Your task to perform on an android device: View the shopping cart on amazon.com. Add "jbl flip 4" to the cart on amazon.com, then select checkout. Image 0: 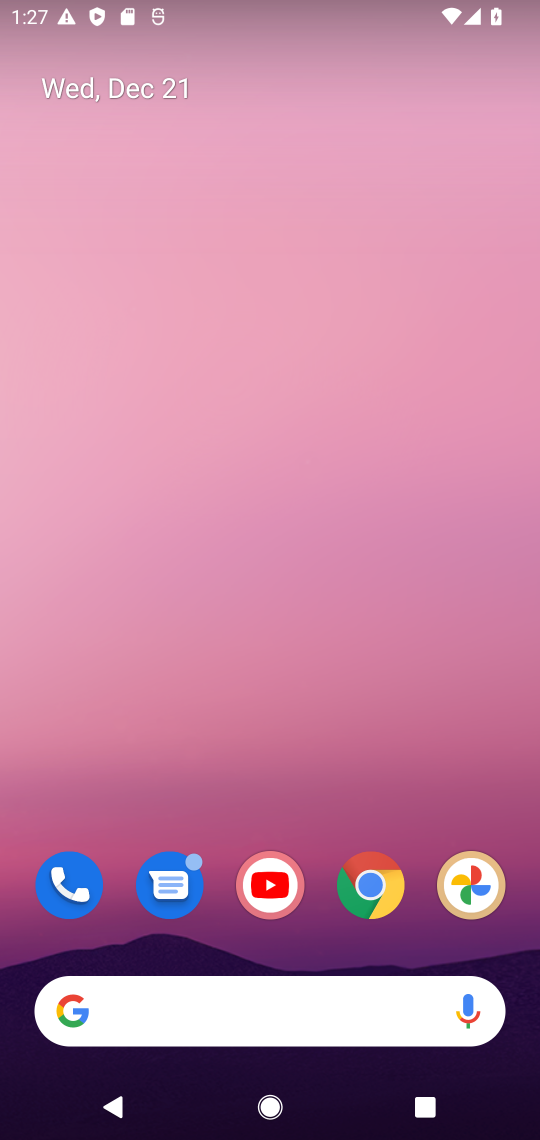
Step 0: drag from (302, 1006) to (268, 488)
Your task to perform on an android device: View the shopping cart on amazon.com. Add "jbl flip 4" to the cart on amazon.com, then select checkout. Image 1: 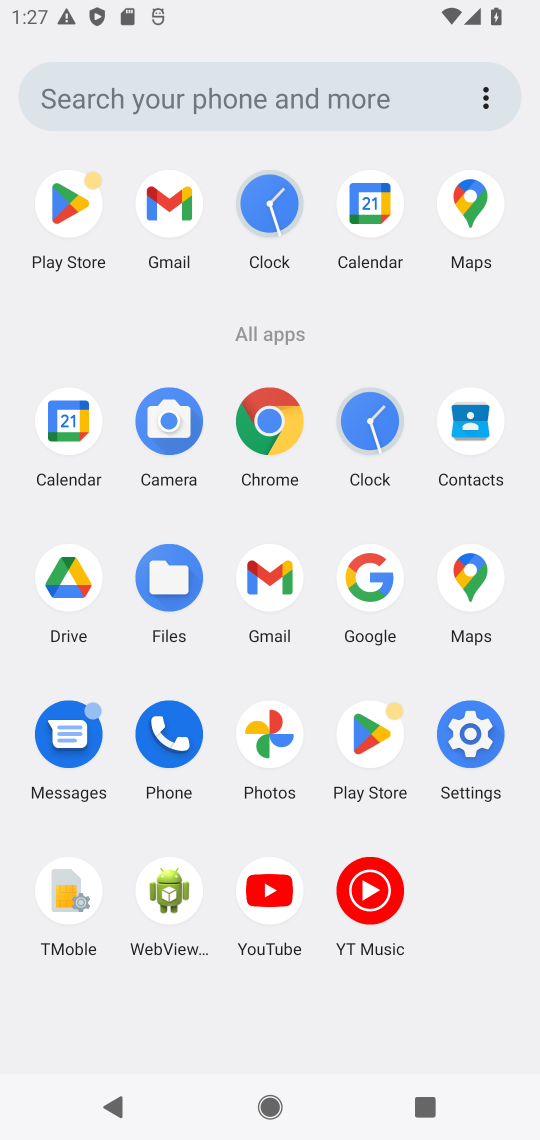
Step 1: click (373, 566)
Your task to perform on an android device: View the shopping cart on amazon.com. Add "jbl flip 4" to the cart on amazon.com, then select checkout. Image 2: 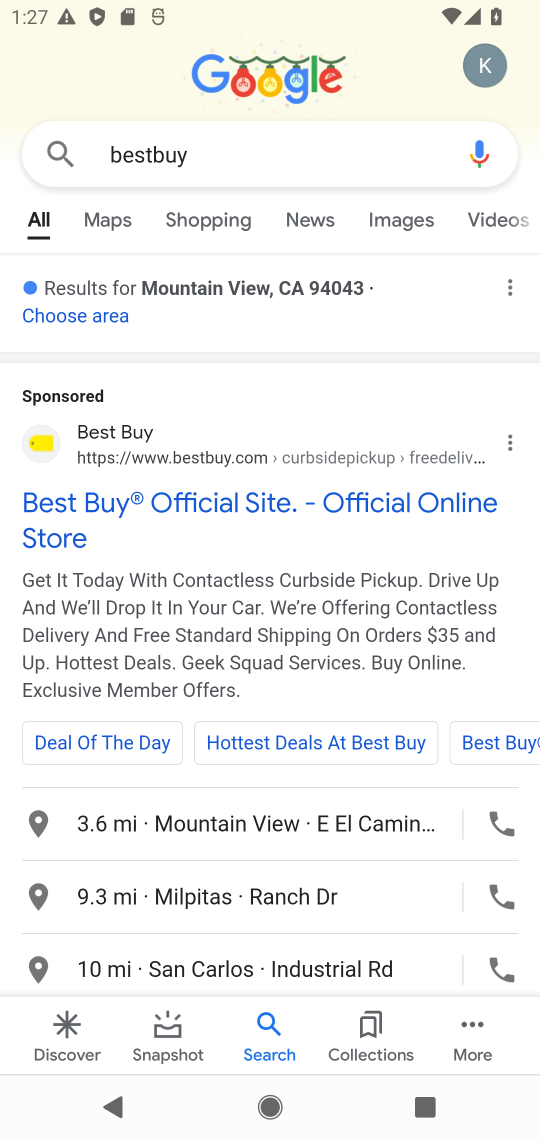
Step 2: click (132, 149)
Your task to perform on an android device: View the shopping cart on amazon.com. Add "jbl flip 4" to the cart on amazon.com, then select checkout. Image 3: 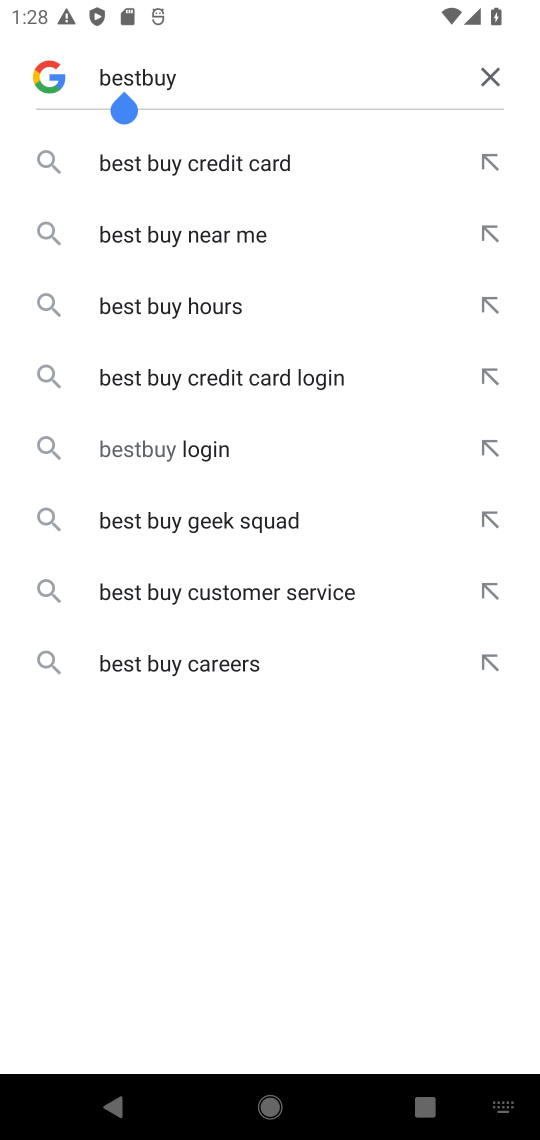
Step 3: click (496, 71)
Your task to perform on an android device: View the shopping cart on amazon.com. Add "jbl flip 4" to the cart on amazon.com, then select checkout. Image 4: 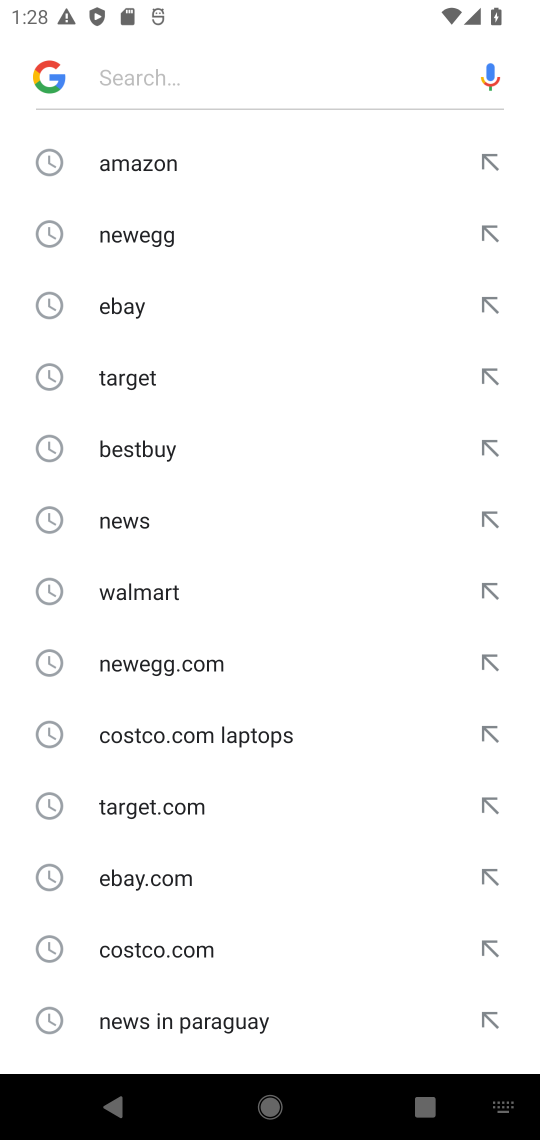
Step 4: click (136, 165)
Your task to perform on an android device: View the shopping cart on amazon.com. Add "jbl flip 4" to the cart on amazon.com, then select checkout. Image 5: 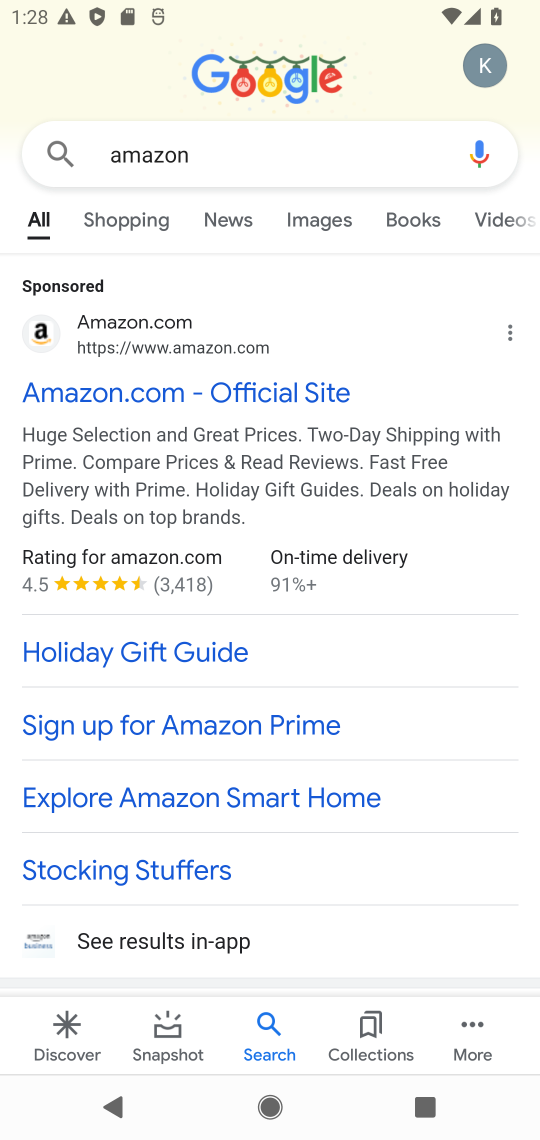
Step 5: click (129, 403)
Your task to perform on an android device: View the shopping cart on amazon.com. Add "jbl flip 4" to the cart on amazon.com, then select checkout. Image 6: 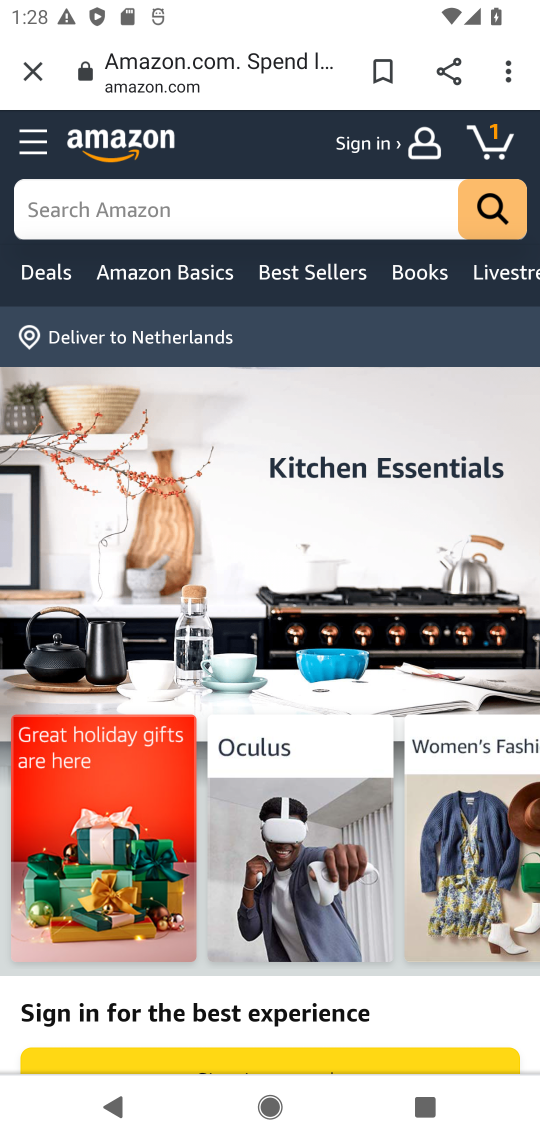
Step 6: click (497, 130)
Your task to perform on an android device: View the shopping cart on amazon.com. Add "jbl flip 4" to the cart on amazon.com, then select checkout. Image 7: 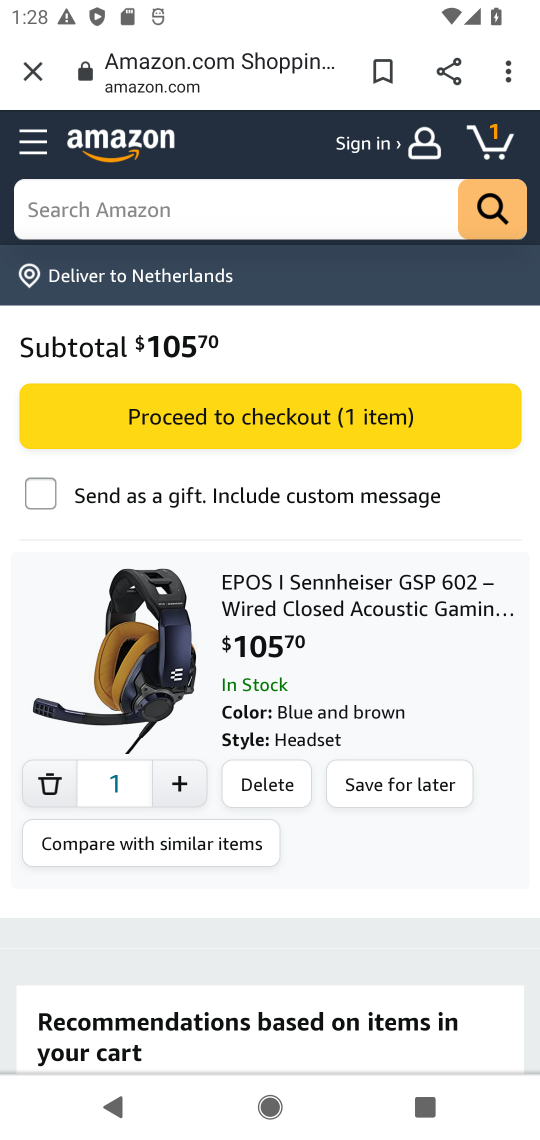
Step 7: click (120, 210)
Your task to perform on an android device: View the shopping cart on amazon.com. Add "jbl flip 4" to the cart on amazon.com, then select checkout. Image 8: 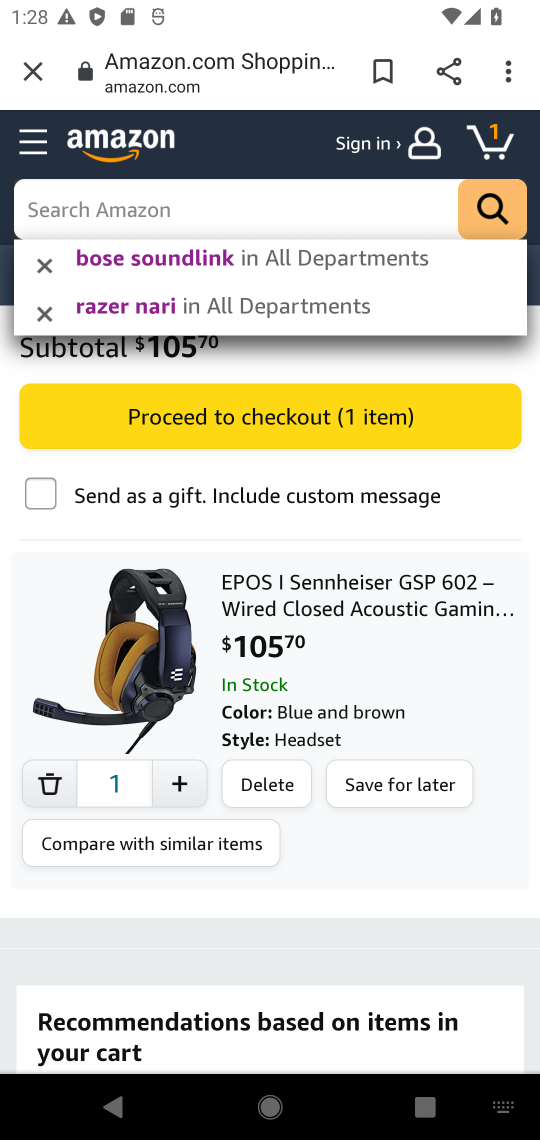
Step 8: type "jbl flip 4"
Your task to perform on an android device: View the shopping cart on amazon.com. Add "jbl flip 4" to the cart on amazon.com, then select checkout. Image 9: 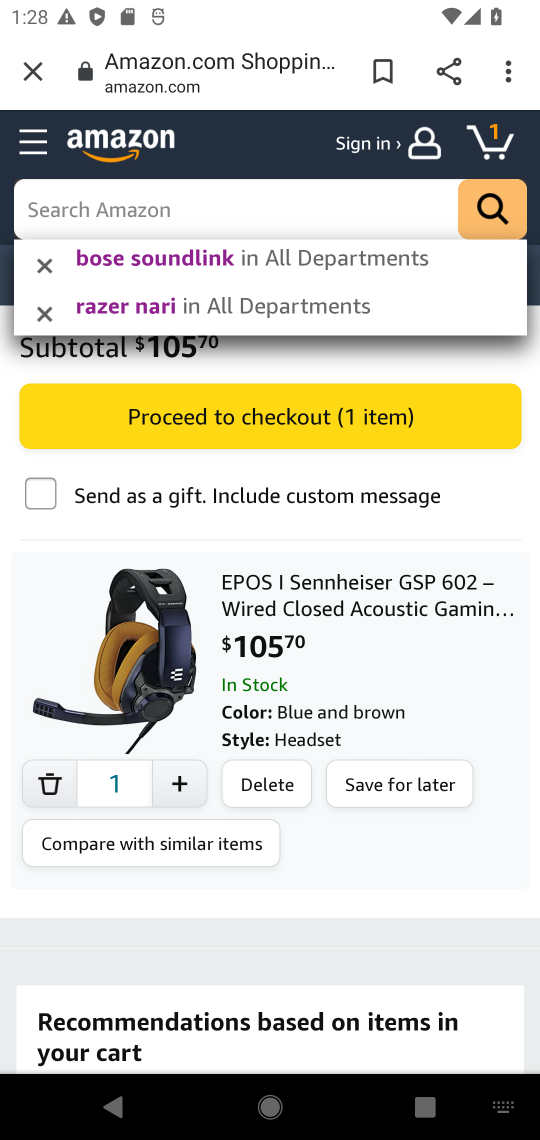
Step 9: click (515, 207)
Your task to perform on an android device: View the shopping cart on amazon.com. Add "jbl flip 4" to the cart on amazon.com, then select checkout. Image 10: 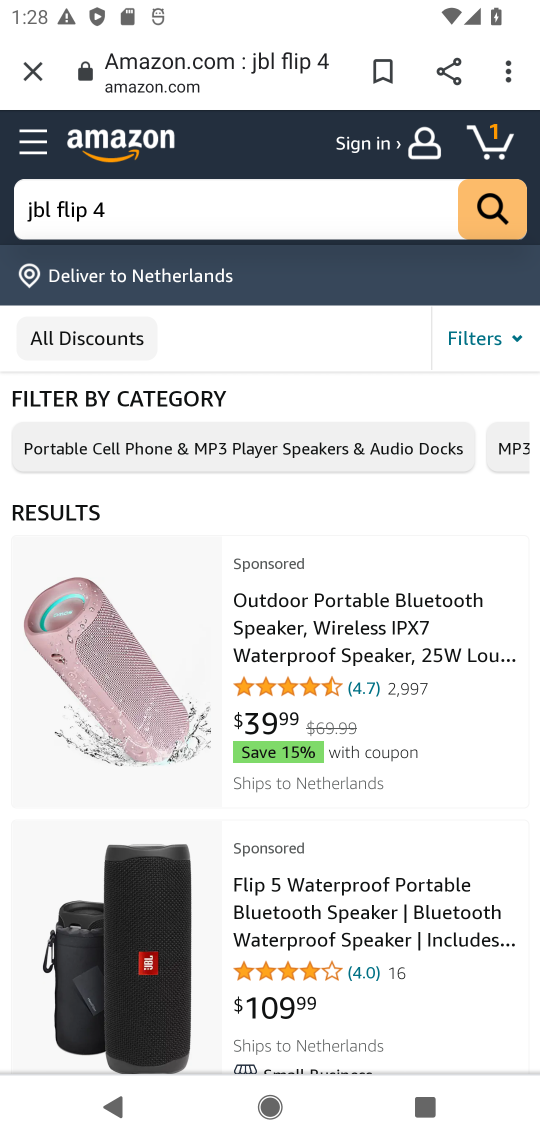
Step 10: click (119, 212)
Your task to perform on an android device: View the shopping cart on amazon.com. Add "jbl flip 4" to the cart on amazon.com, then select checkout. Image 11: 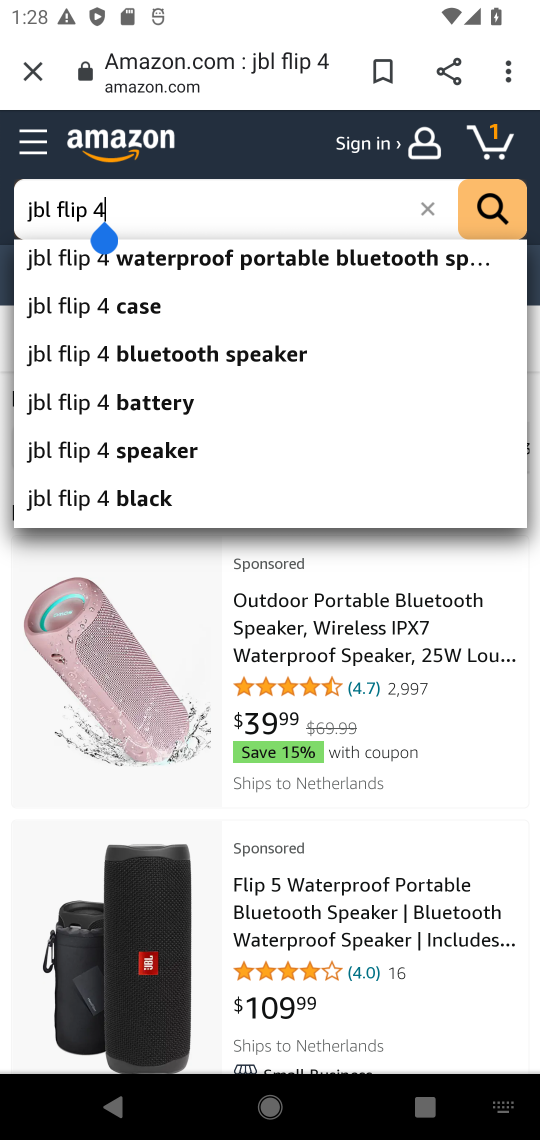
Step 11: click (90, 299)
Your task to perform on an android device: View the shopping cart on amazon.com. Add "jbl flip 4" to the cart on amazon.com, then select checkout. Image 12: 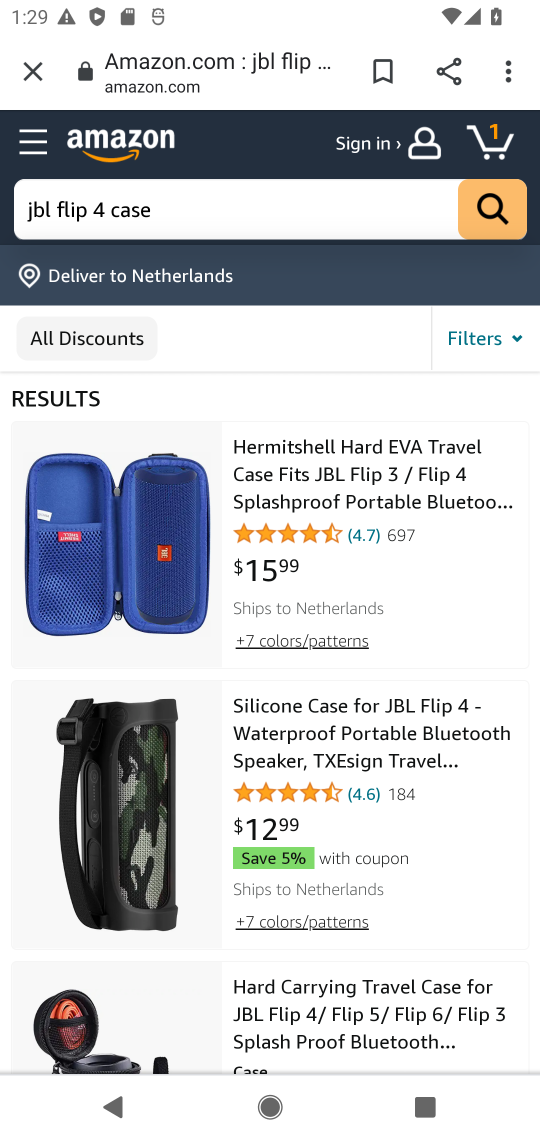
Step 12: click (281, 475)
Your task to perform on an android device: View the shopping cart on amazon.com. Add "jbl flip 4" to the cart on amazon.com, then select checkout. Image 13: 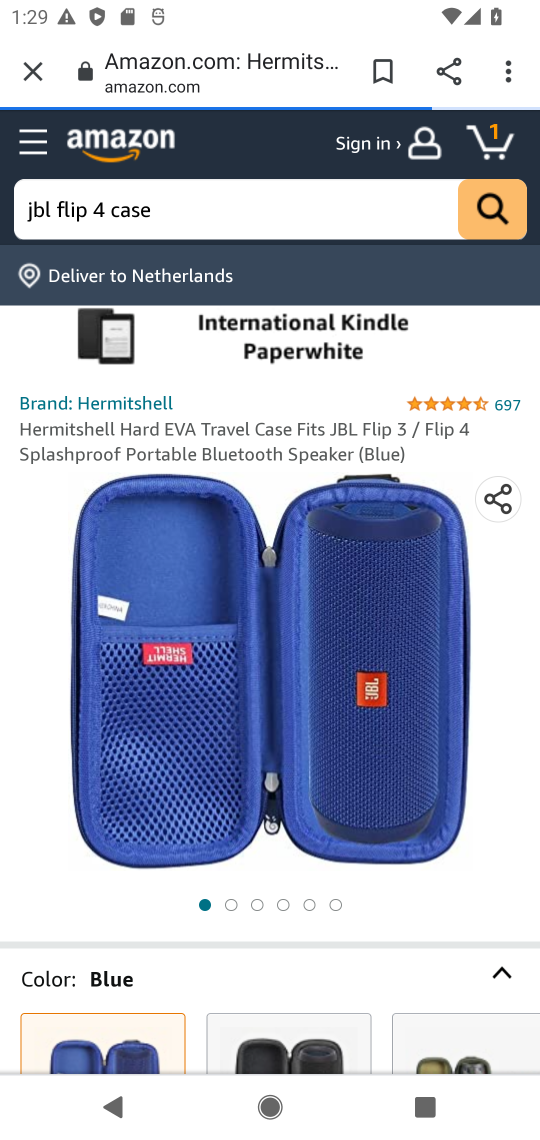
Step 13: drag from (369, 880) to (332, 468)
Your task to perform on an android device: View the shopping cart on amazon.com. Add "jbl flip 4" to the cart on amazon.com, then select checkout. Image 14: 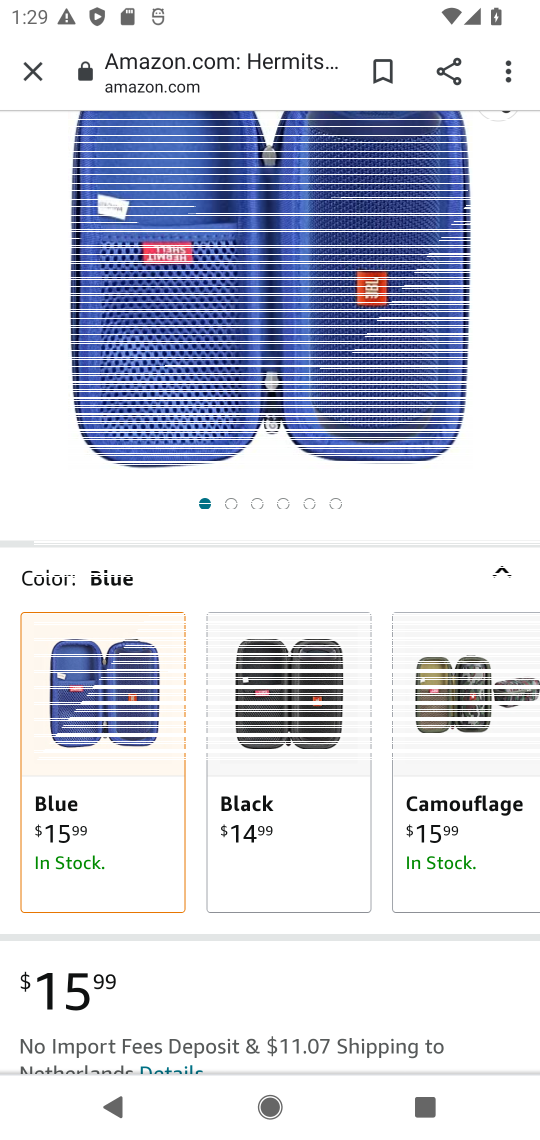
Step 14: drag from (292, 1009) to (203, 517)
Your task to perform on an android device: View the shopping cart on amazon.com. Add "jbl flip 4" to the cart on amazon.com, then select checkout. Image 15: 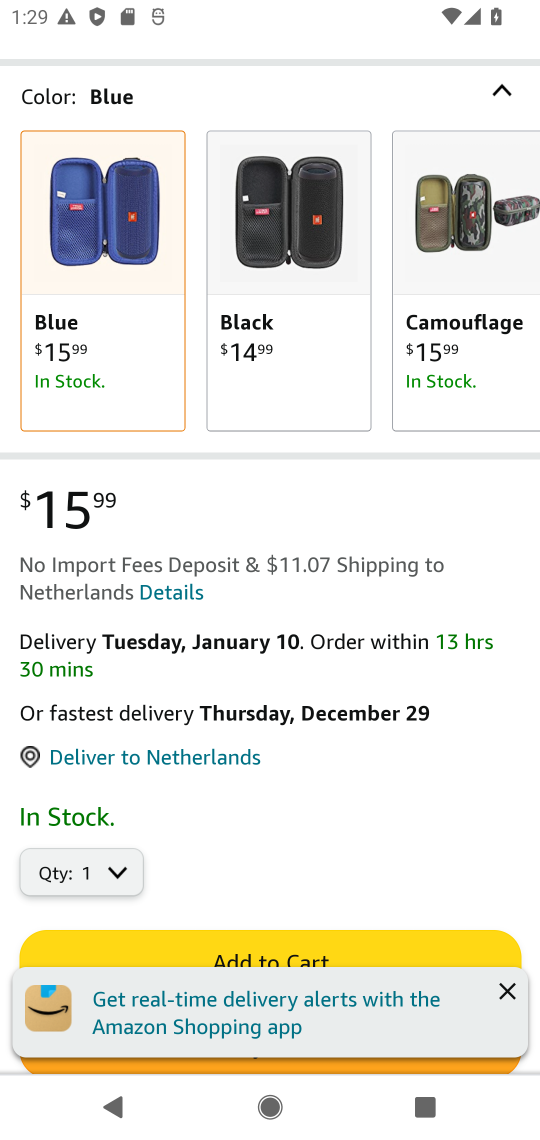
Step 15: click (276, 950)
Your task to perform on an android device: View the shopping cart on amazon.com. Add "jbl flip 4" to the cart on amazon.com, then select checkout. Image 16: 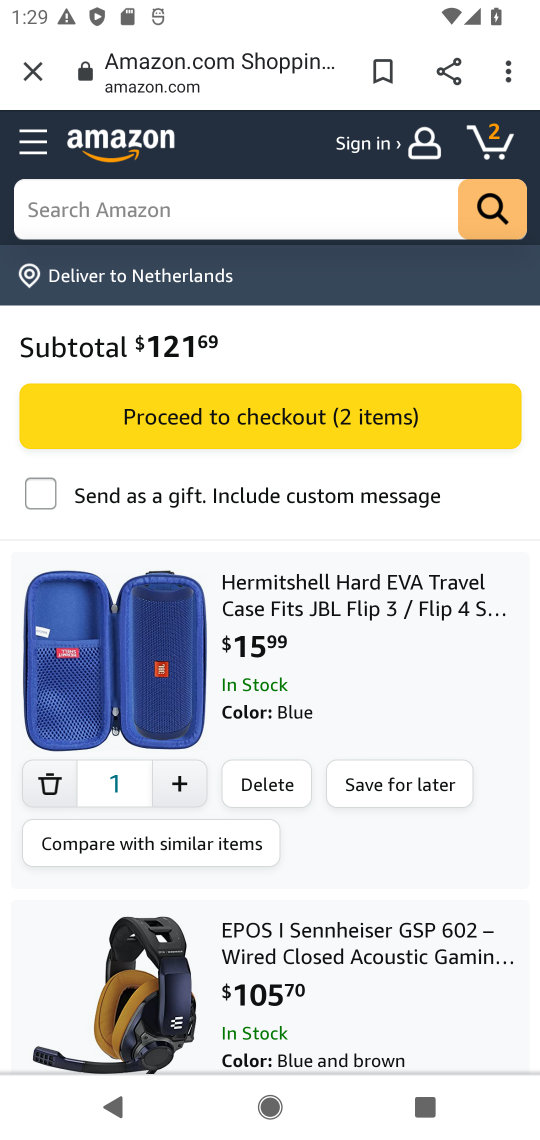
Step 16: click (316, 407)
Your task to perform on an android device: View the shopping cart on amazon.com. Add "jbl flip 4" to the cart on amazon.com, then select checkout. Image 17: 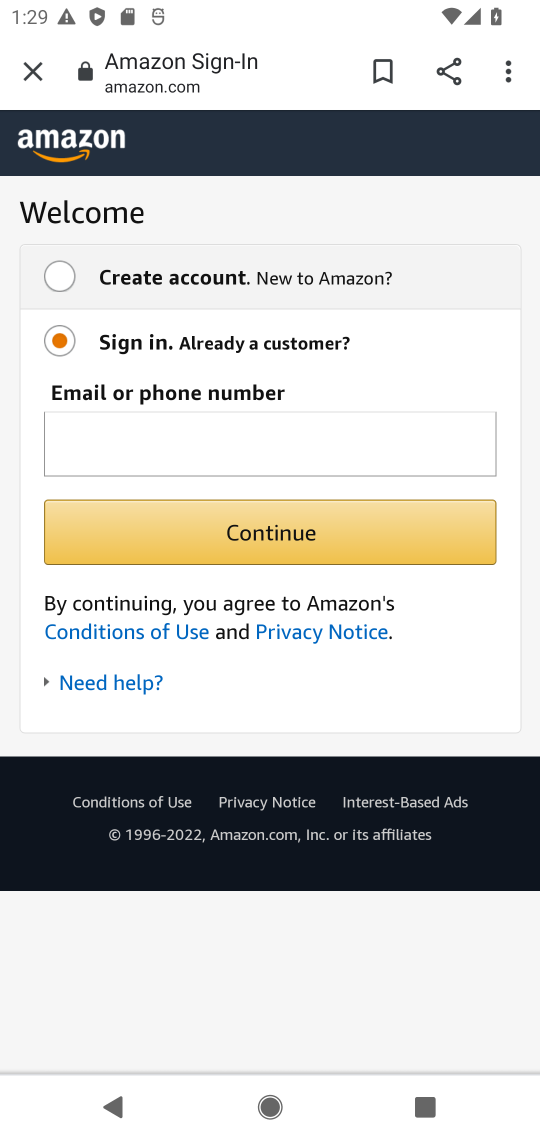
Step 17: task complete